Your task to perform on an android device: turn on airplane mode Image 0: 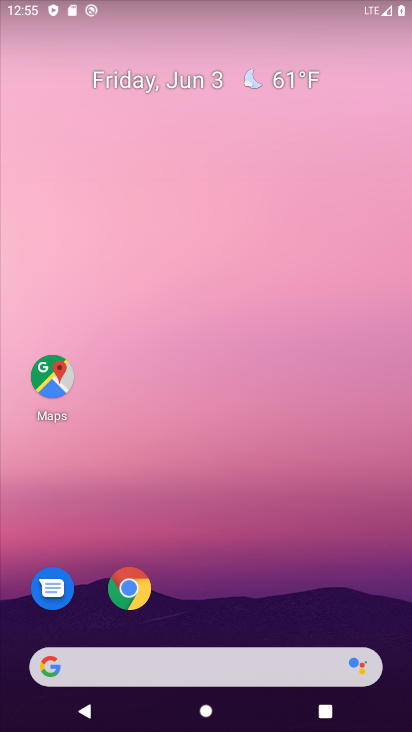
Step 0: drag from (54, 605) to (361, 96)
Your task to perform on an android device: turn on airplane mode Image 1: 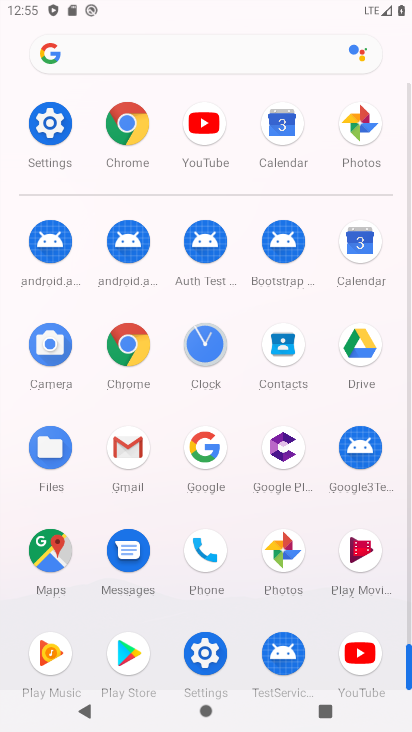
Step 1: click (42, 136)
Your task to perform on an android device: turn on airplane mode Image 2: 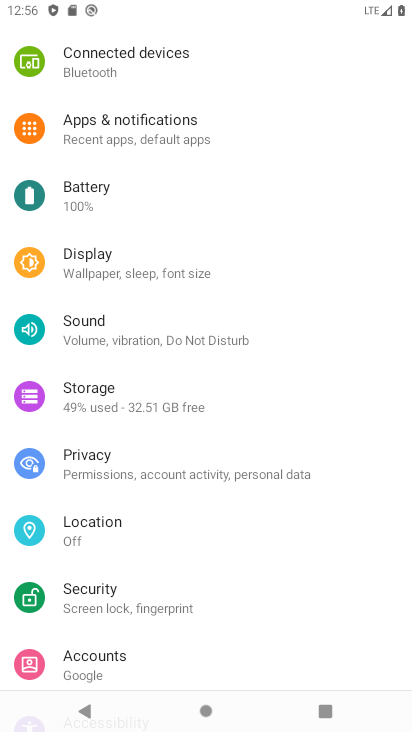
Step 2: drag from (164, 49) to (60, 566)
Your task to perform on an android device: turn on airplane mode Image 3: 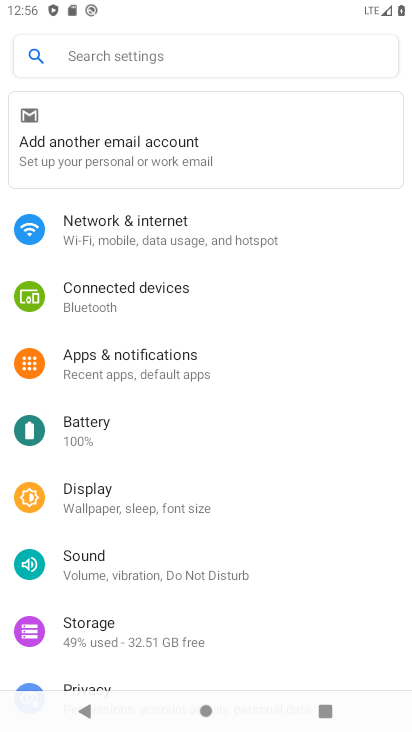
Step 3: click (126, 226)
Your task to perform on an android device: turn on airplane mode Image 4: 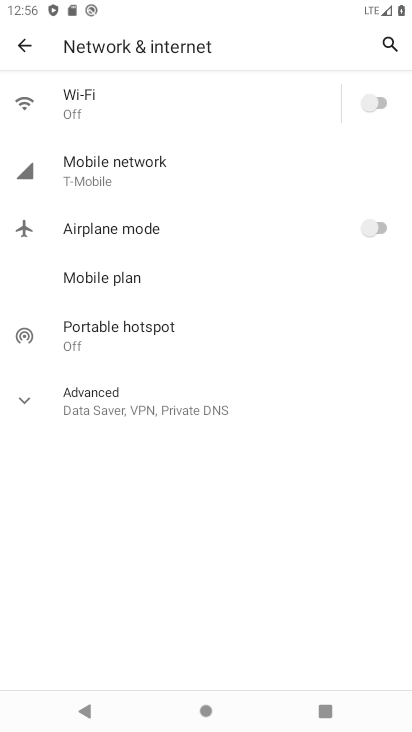
Step 4: click (366, 222)
Your task to perform on an android device: turn on airplane mode Image 5: 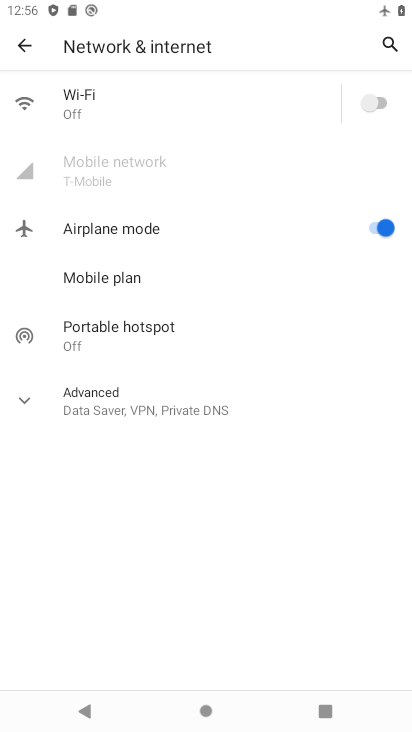
Step 5: task complete